Your task to perform on an android device: Clear all items from cart on newegg. Search for "usb-b" on newegg, select the first entry, add it to the cart, then select checkout. Image 0: 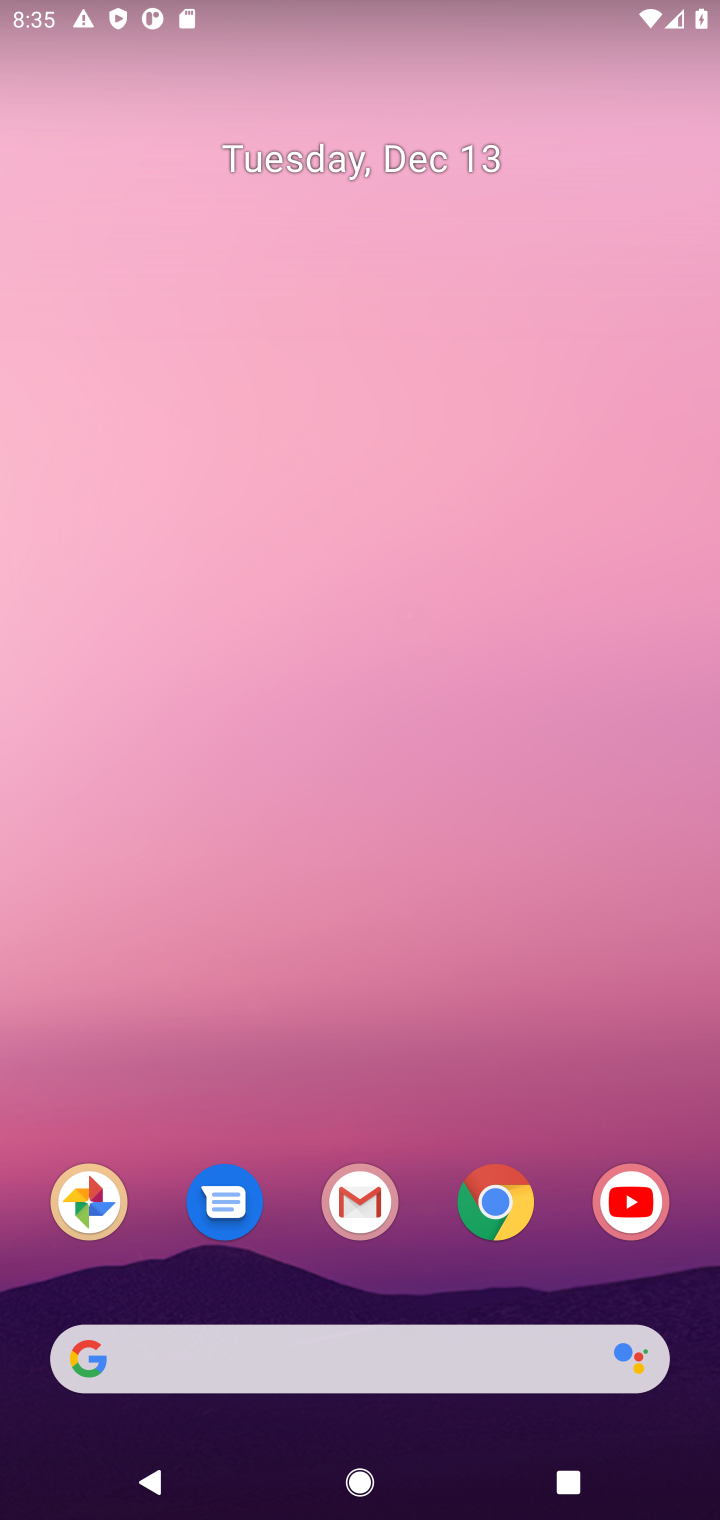
Step 0: click (499, 1208)
Your task to perform on an android device: Clear all items from cart on newegg. Search for "usb-b" on newegg, select the first entry, add it to the cart, then select checkout. Image 1: 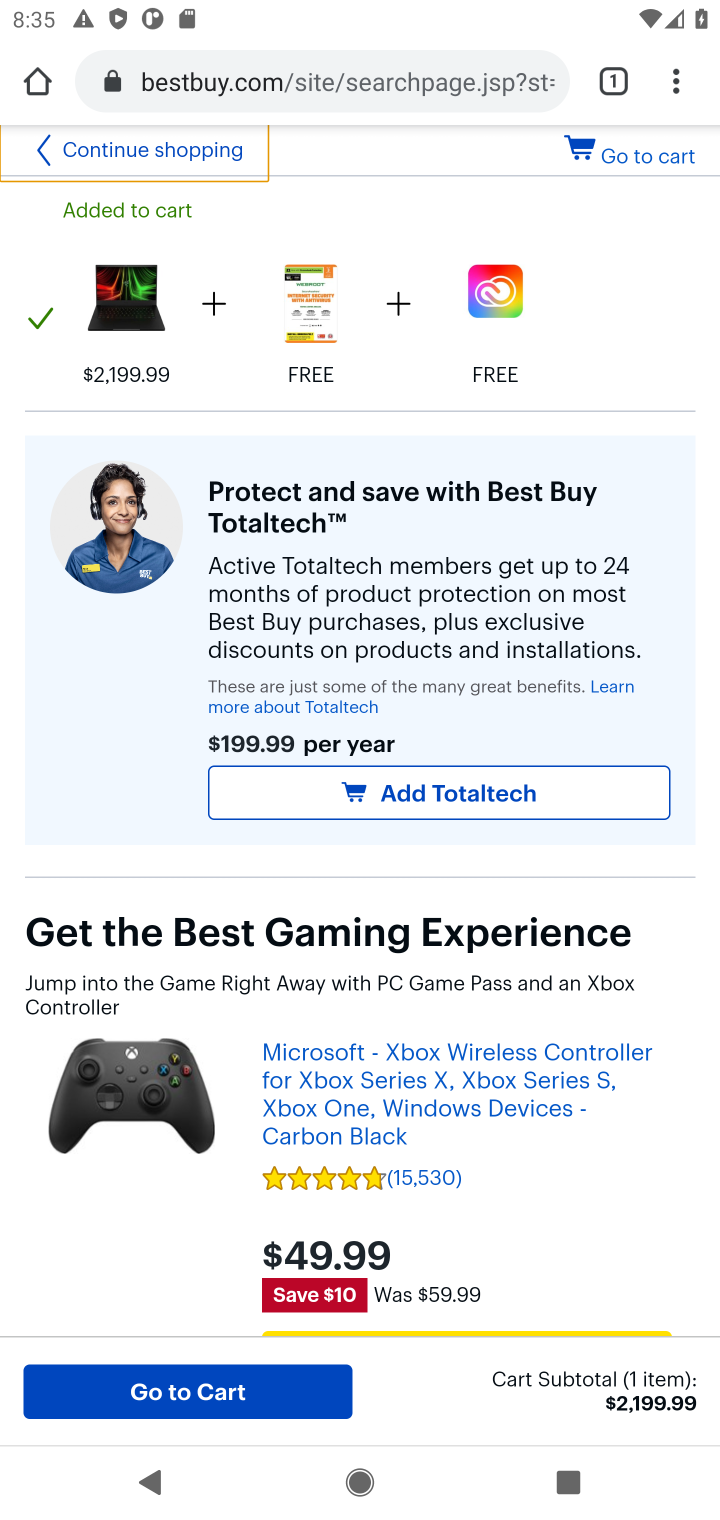
Step 1: click (288, 80)
Your task to perform on an android device: Clear all items from cart on newegg. Search for "usb-b" on newegg, select the first entry, add it to the cart, then select checkout. Image 2: 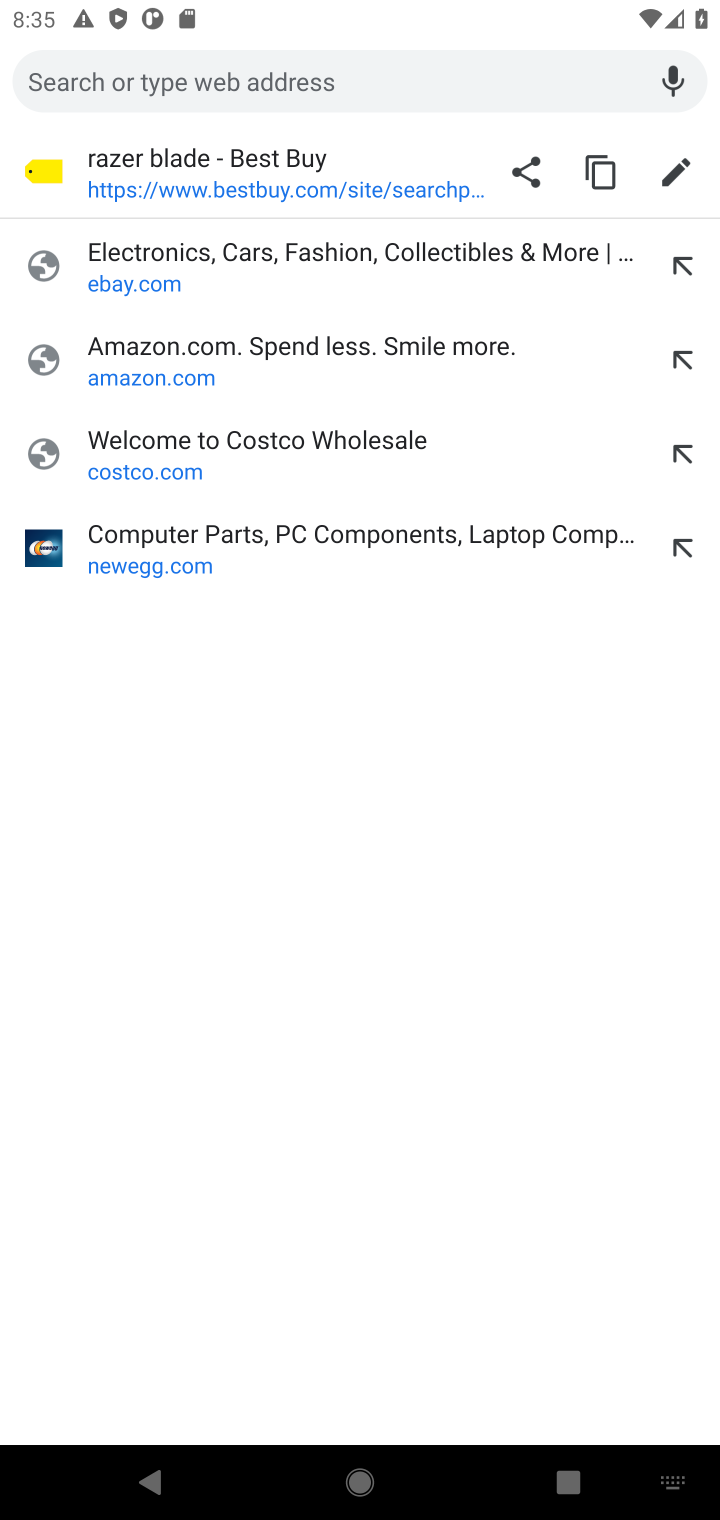
Step 2: click (95, 561)
Your task to perform on an android device: Clear all items from cart on newegg. Search for "usb-b" on newegg, select the first entry, add it to the cart, then select checkout. Image 3: 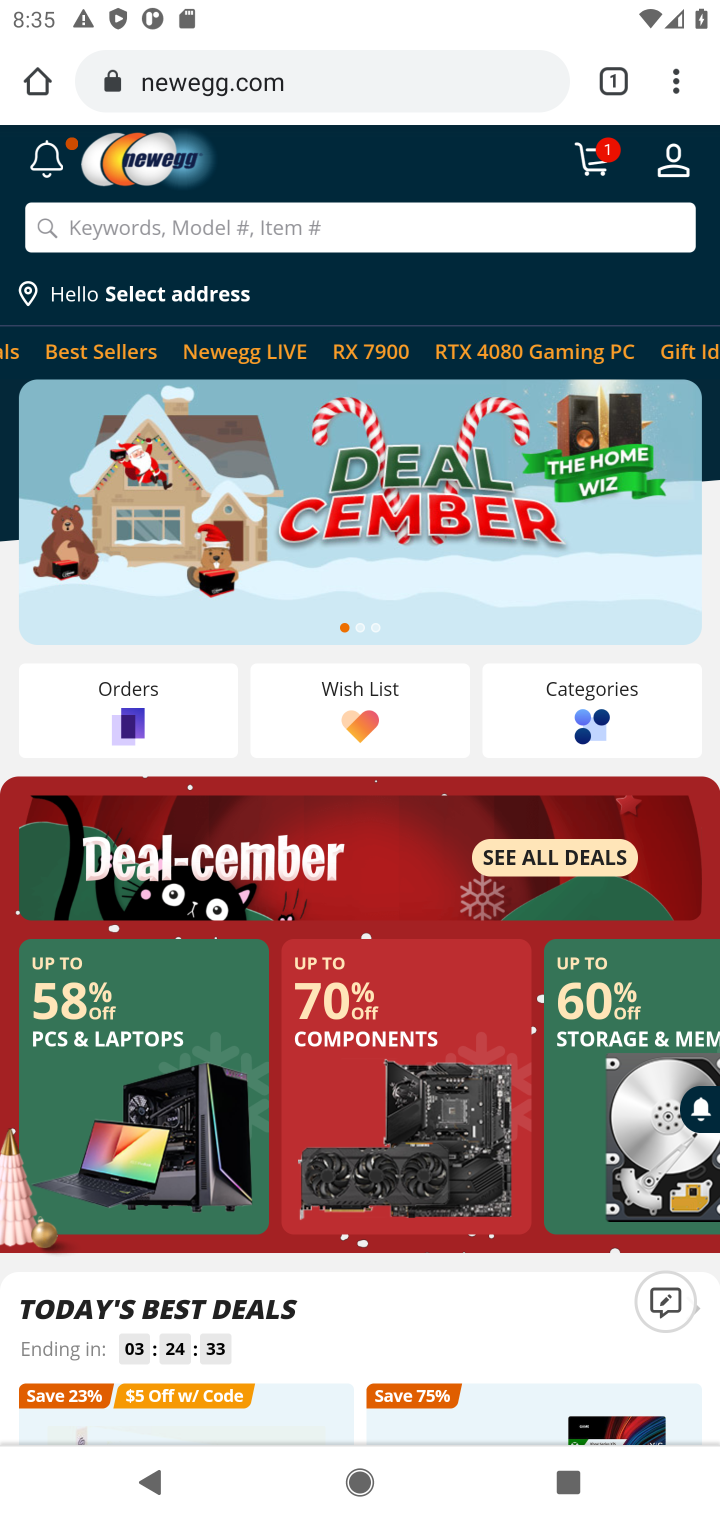
Step 3: click (599, 173)
Your task to perform on an android device: Clear all items from cart on newegg. Search for "usb-b" on newegg, select the first entry, add it to the cart, then select checkout. Image 4: 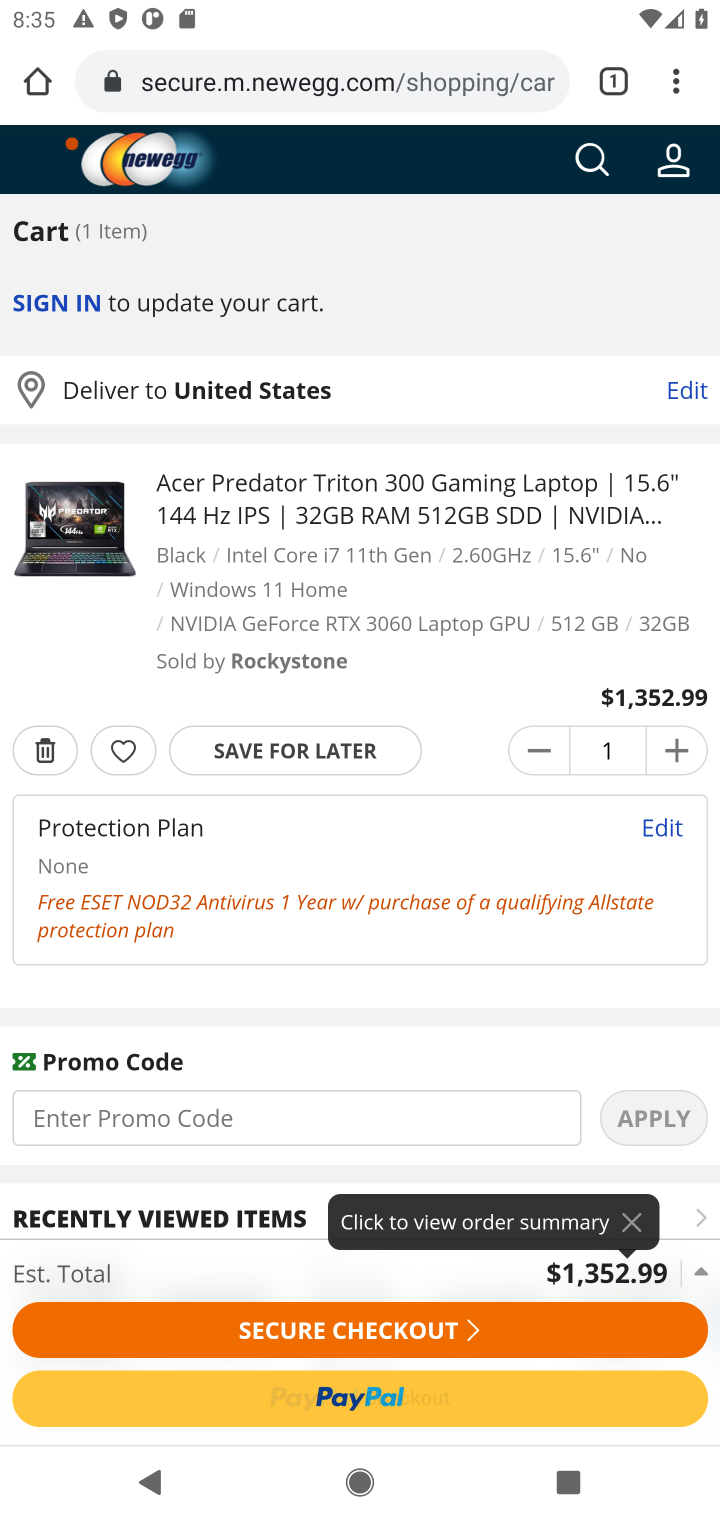
Step 4: click (41, 760)
Your task to perform on an android device: Clear all items from cart on newegg. Search for "usb-b" on newegg, select the first entry, add it to the cart, then select checkout. Image 5: 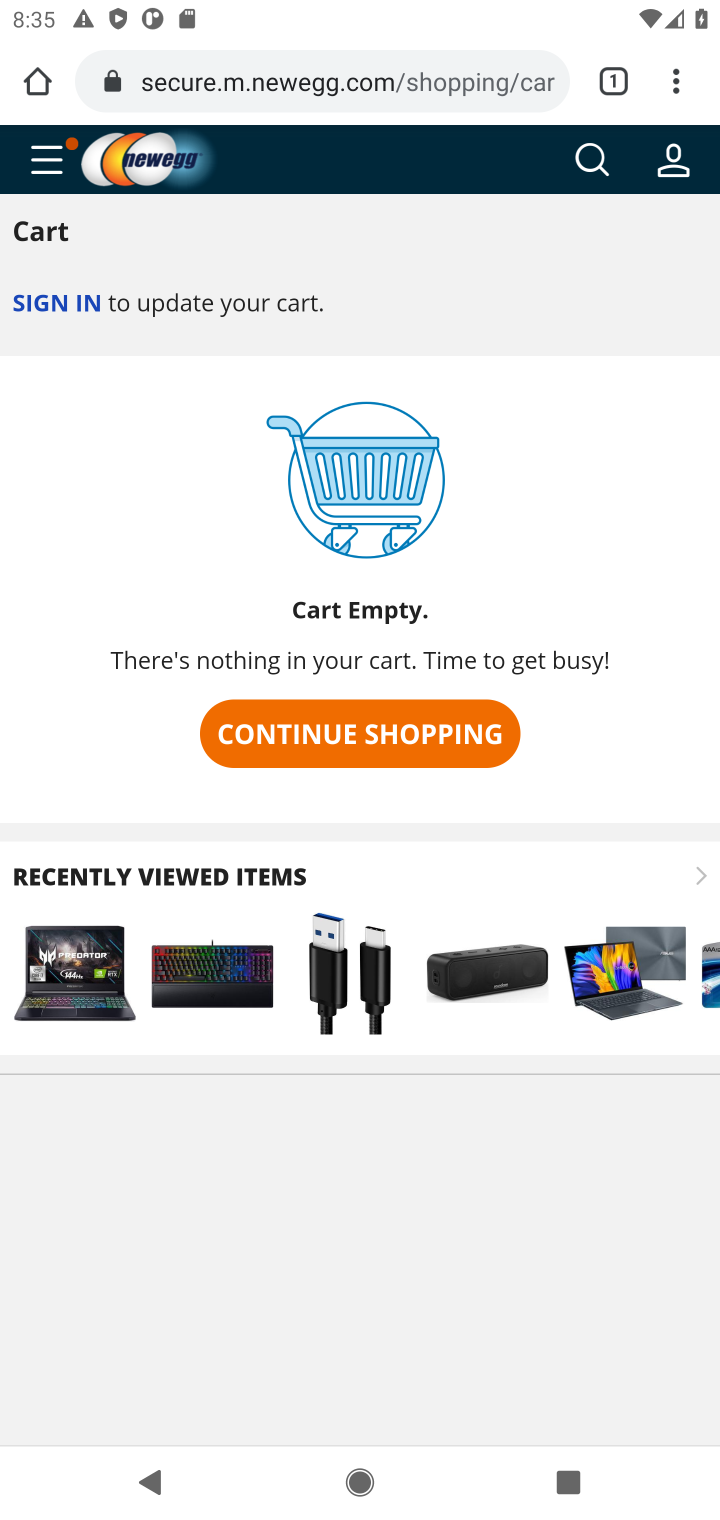
Step 5: click (580, 161)
Your task to perform on an android device: Clear all items from cart on newegg. Search for "usb-b" on newegg, select the first entry, add it to the cart, then select checkout. Image 6: 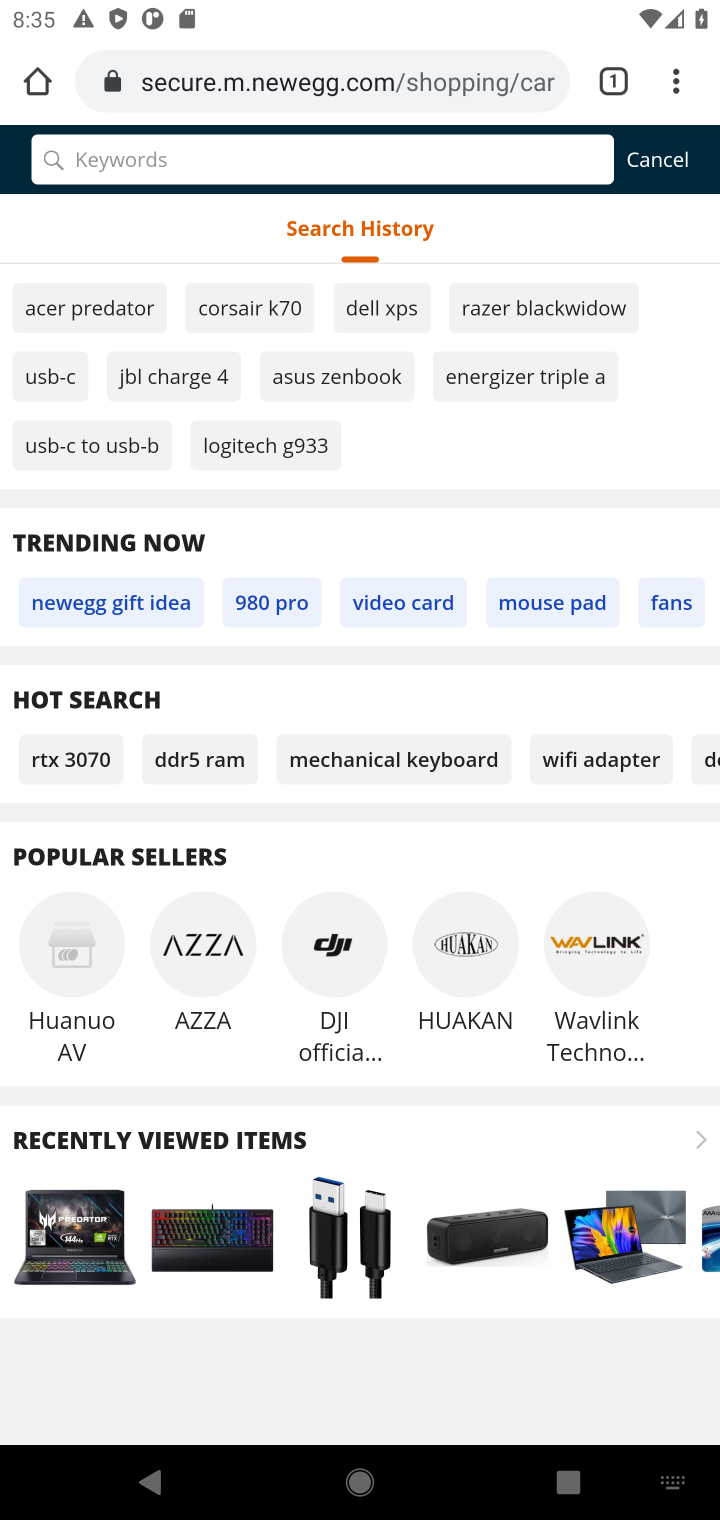
Step 6: type "usb-b"
Your task to perform on an android device: Clear all items from cart on newegg. Search for "usb-b" on newegg, select the first entry, add it to the cart, then select checkout. Image 7: 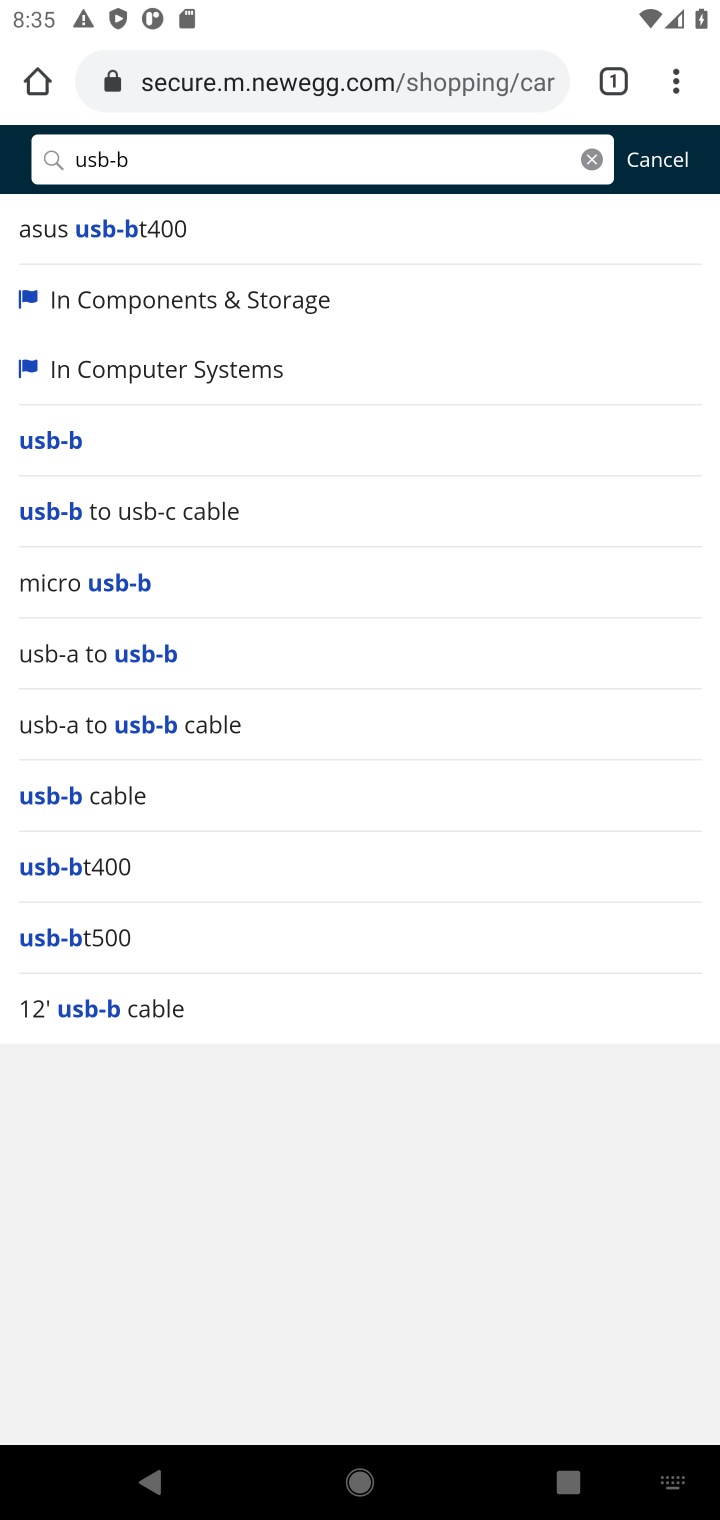
Step 7: click (73, 449)
Your task to perform on an android device: Clear all items from cart on newegg. Search for "usb-b" on newegg, select the first entry, add it to the cart, then select checkout. Image 8: 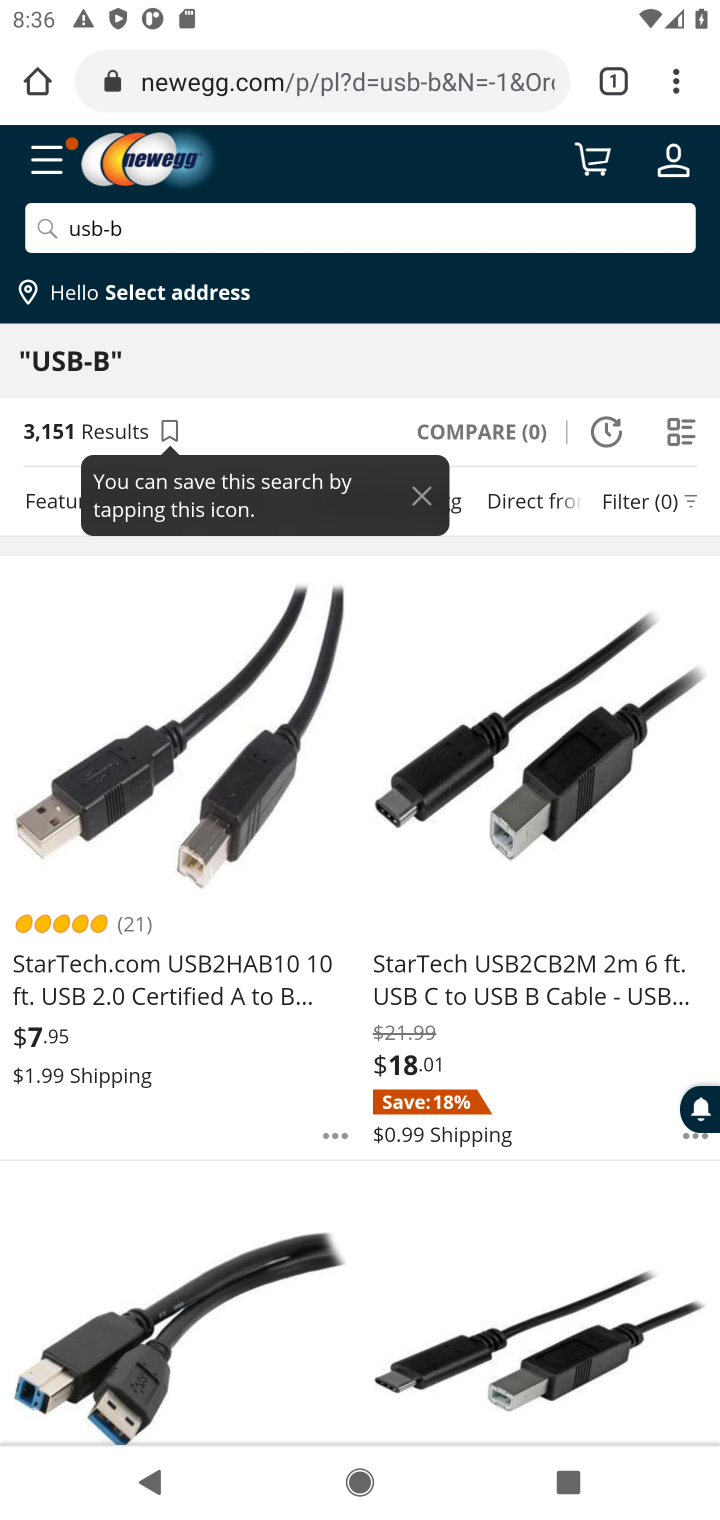
Step 8: click (149, 989)
Your task to perform on an android device: Clear all items from cart on newegg. Search for "usb-b" on newegg, select the first entry, add it to the cart, then select checkout. Image 9: 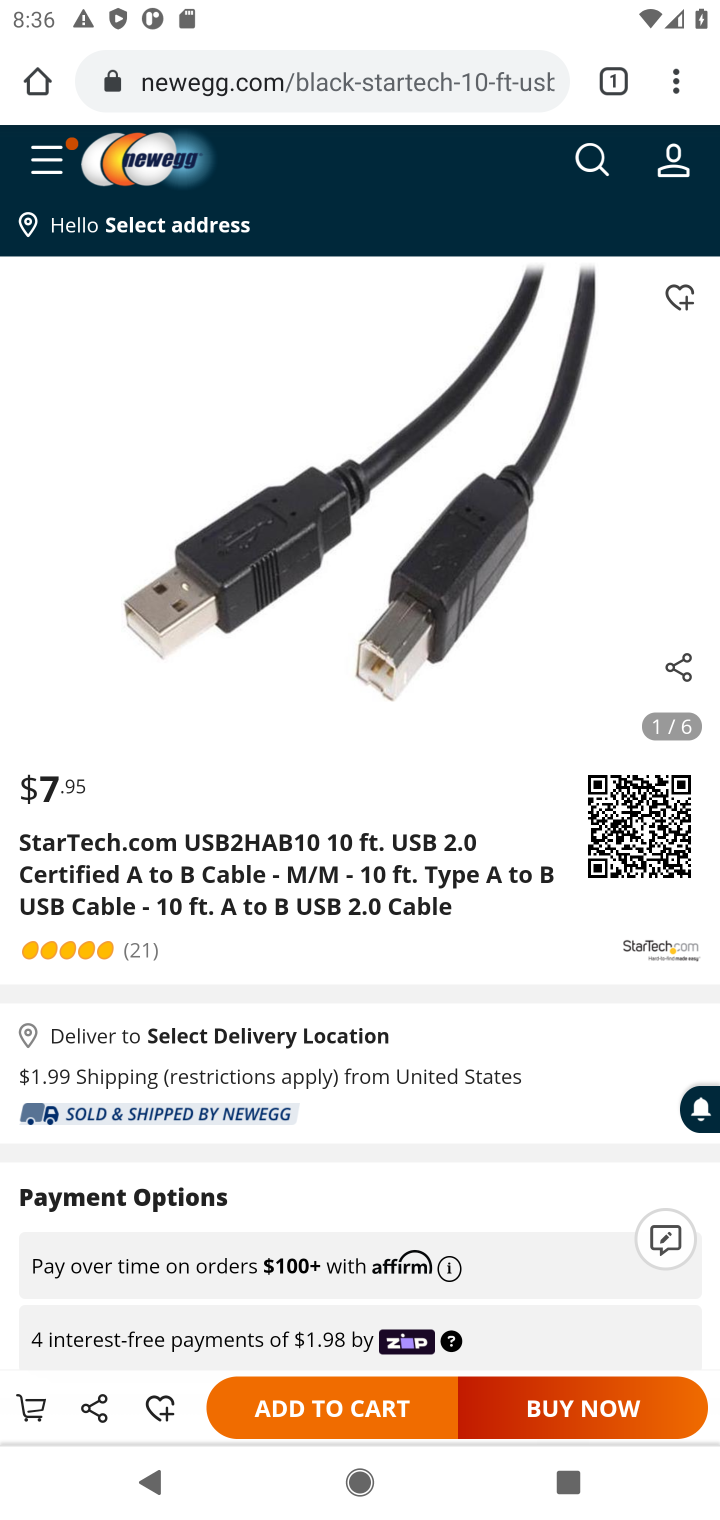
Step 9: click (319, 1402)
Your task to perform on an android device: Clear all items from cart on newegg. Search for "usb-b" on newegg, select the first entry, add it to the cart, then select checkout. Image 10: 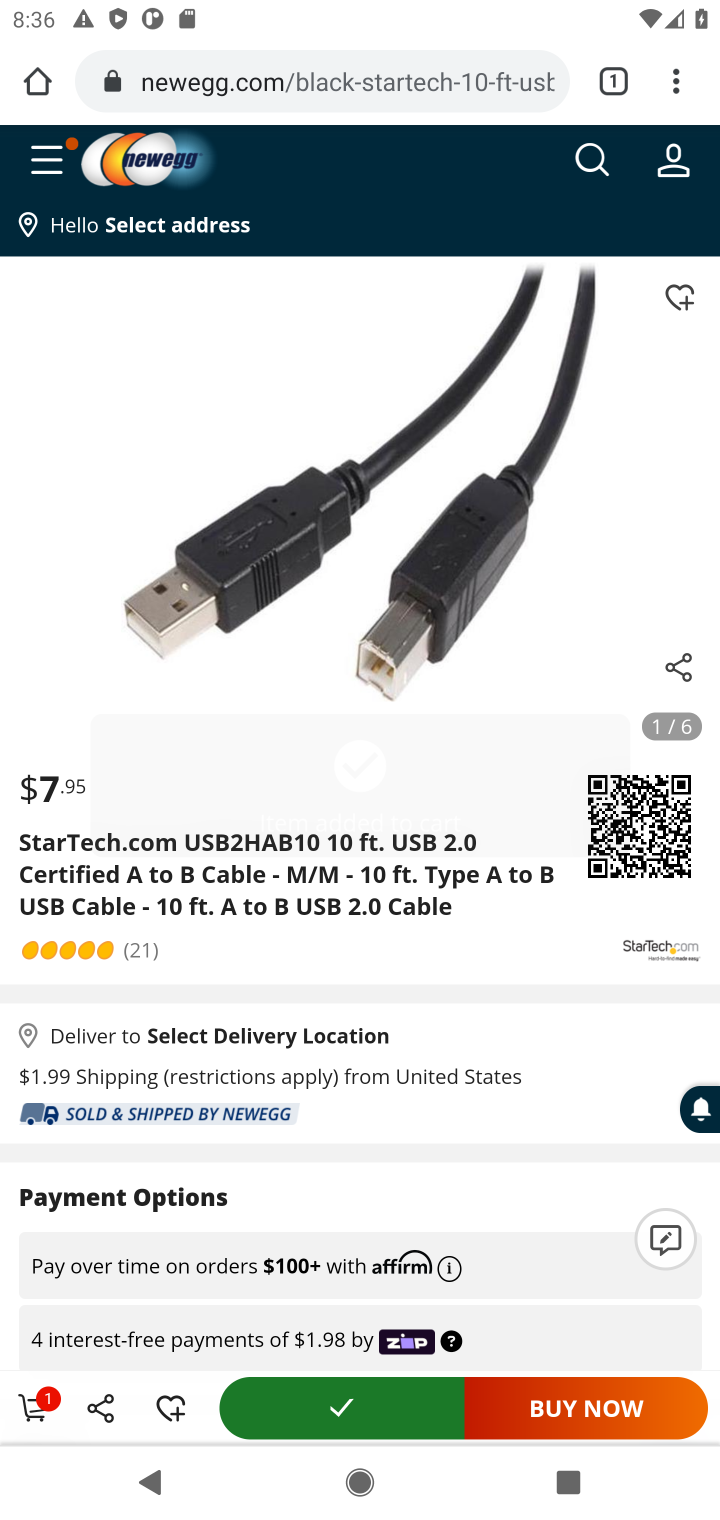
Step 10: click (42, 1413)
Your task to perform on an android device: Clear all items from cart on newegg. Search for "usb-b" on newegg, select the first entry, add it to the cart, then select checkout. Image 11: 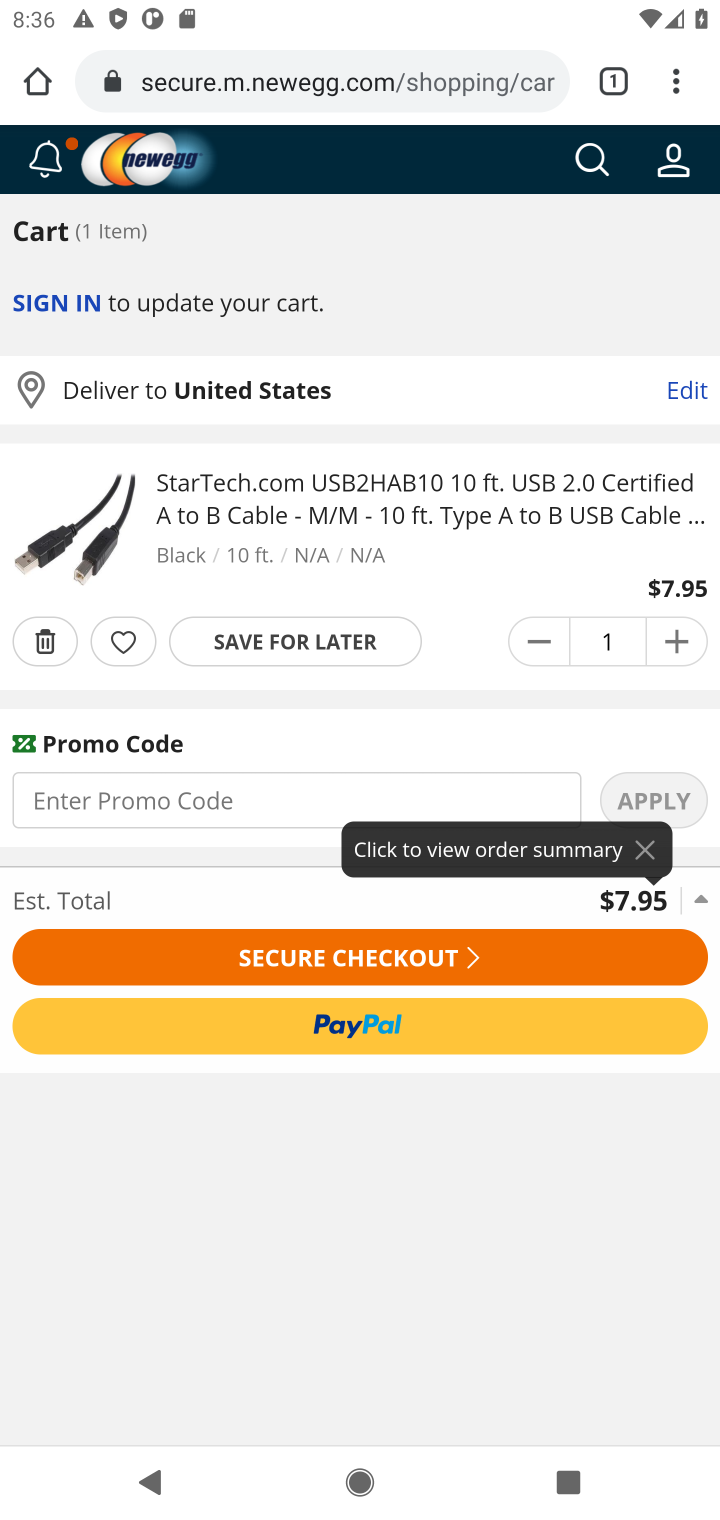
Step 11: click (301, 959)
Your task to perform on an android device: Clear all items from cart on newegg. Search for "usb-b" on newegg, select the first entry, add it to the cart, then select checkout. Image 12: 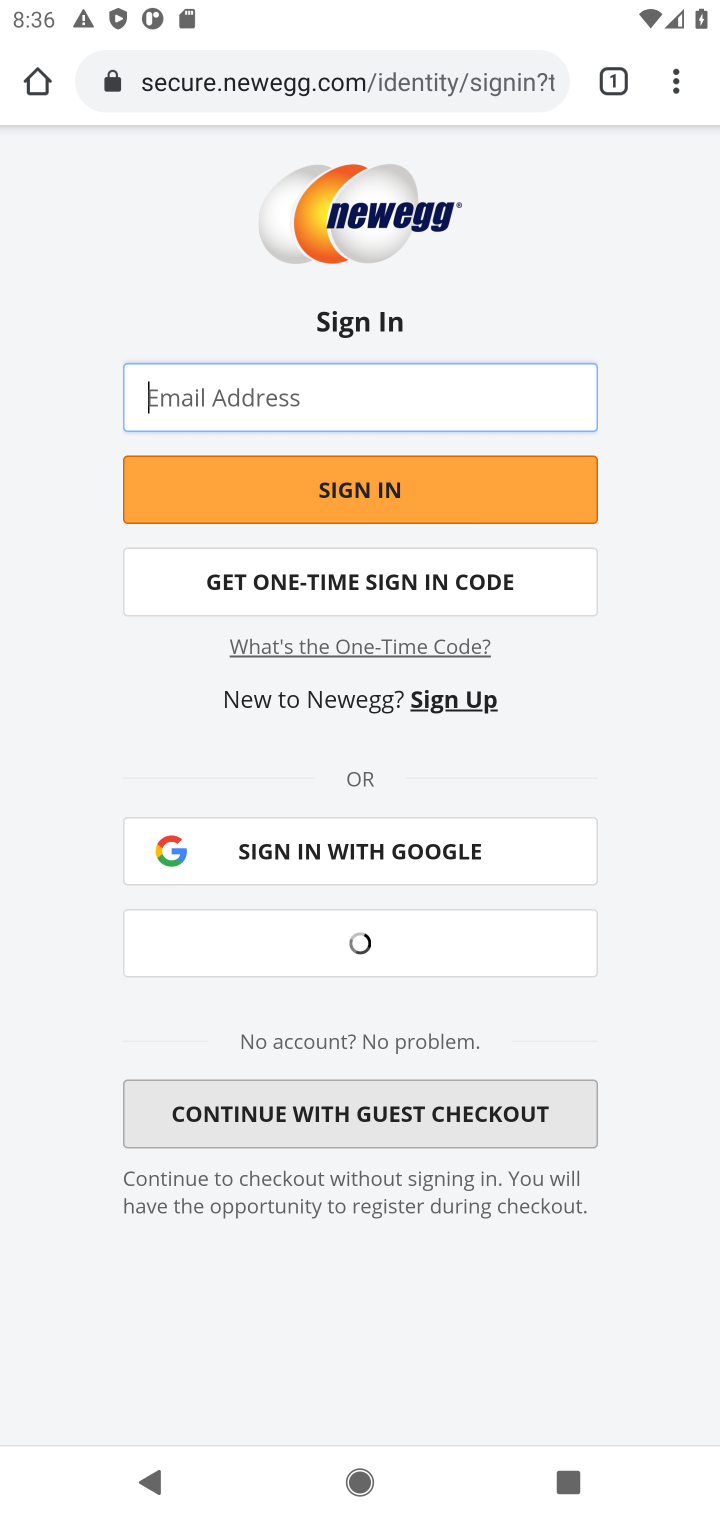
Step 12: task complete